Your task to perform on an android device: delete a single message in the gmail app Image 0: 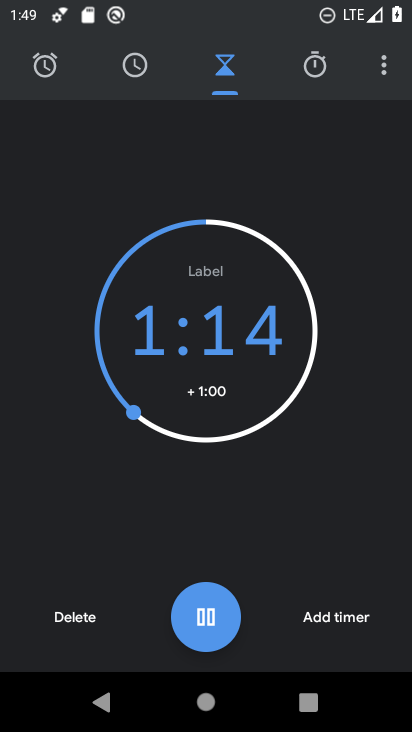
Step 0: press home button
Your task to perform on an android device: delete a single message in the gmail app Image 1: 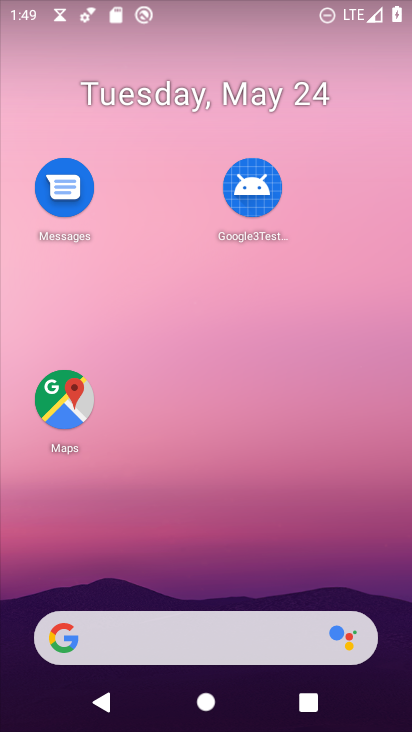
Step 1: drag from (223, 581) to (206, 142)
Your task to perform on an android device: delete a single message in the gmail app Image 2: 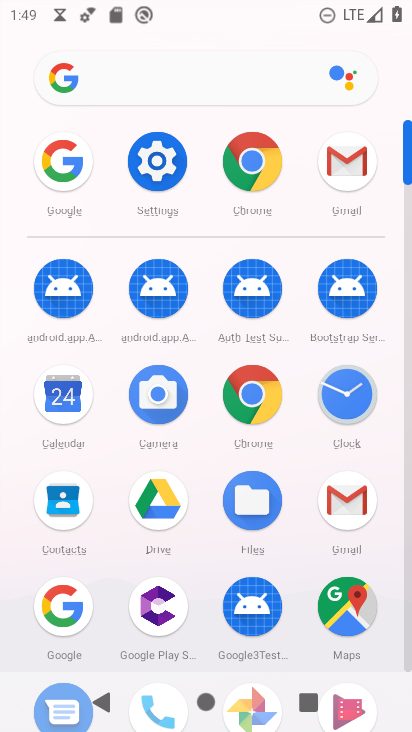
Step 2: click (343, 167)
Your task to perform on an android device: delete a single message in the gmail app Image 3: 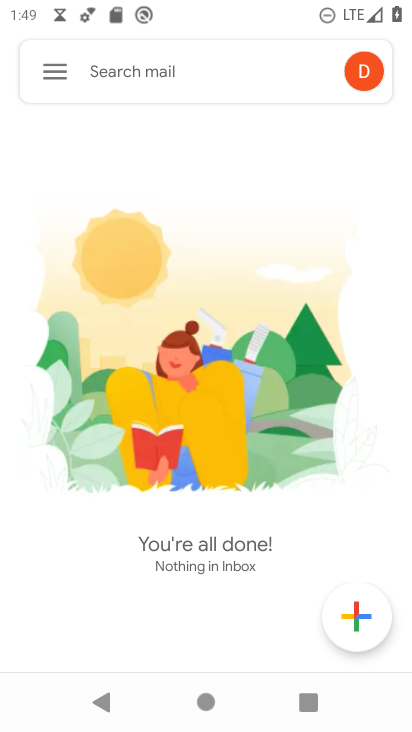
Step 3: click (41, 71)
Your task to perform on an android device: delete a single message in the gmail app Image 4: 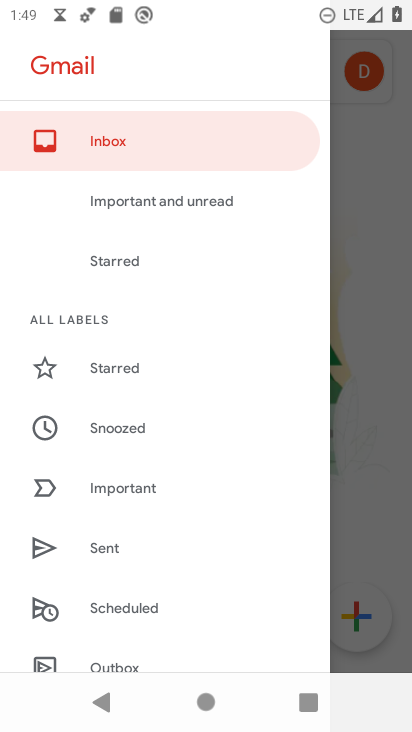
Step 4: click (139, 153)
Your task to perform on an android device: delete a single message in the gmail app Image 5: 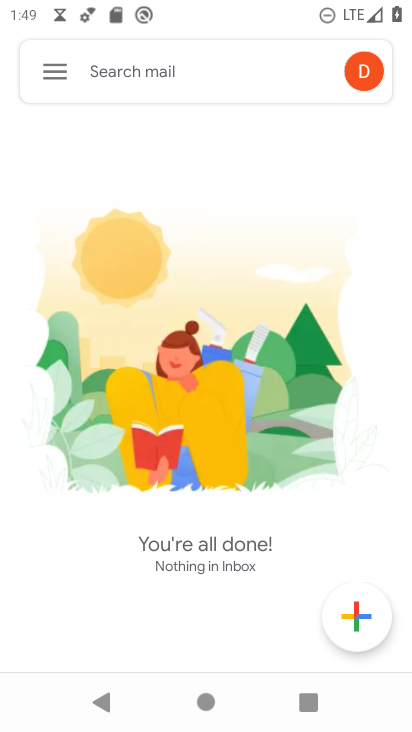
Step 5: click (60, 89)
Your task to perform on an android device: delete a single message in the gmail app Image 6: 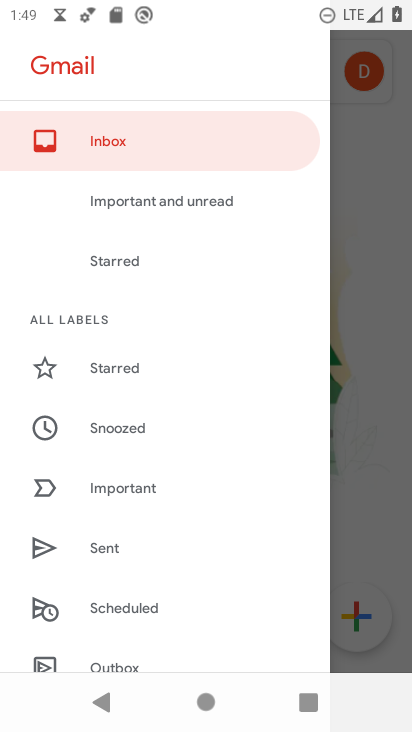
Step 6: drag from (145, 633) to (230, 171)
Your task to perform on an android device: delete a single message in the gmail app Image 7: 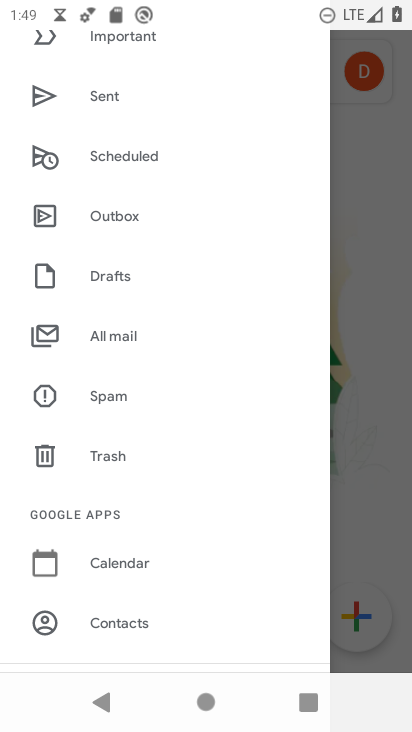
Step 7: click (119, 333)
Your task to perform on an android device: delete a single message in the gmail app Image 8: 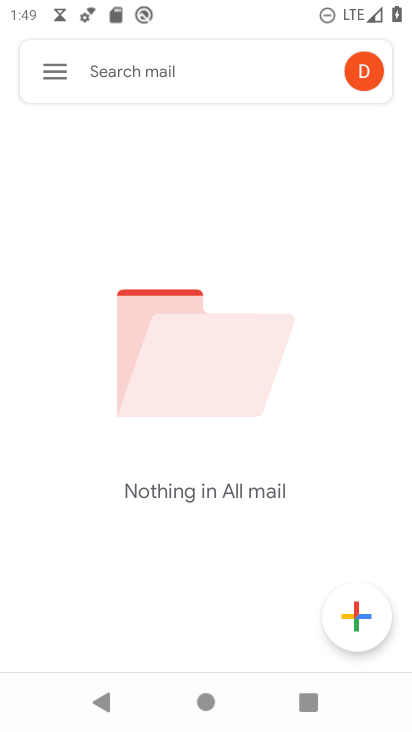
Step 8: task complete